Your task to perform on an android device: Open calendar and show me the second week of next month Image 0: 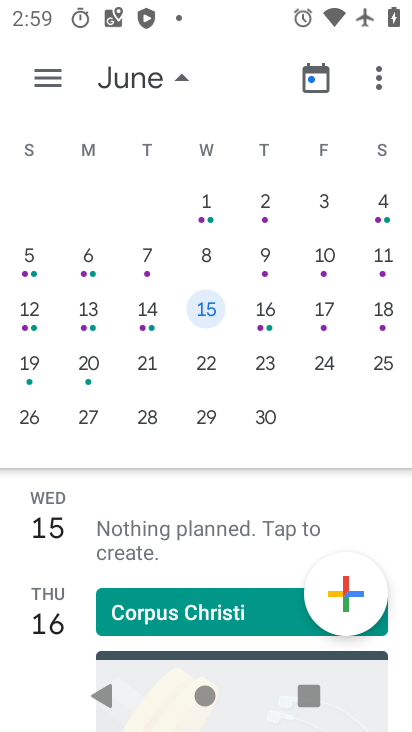
Step 0: press home button
Your task to perform on an android device: Open calendar and show me the second week of next month Image 1: 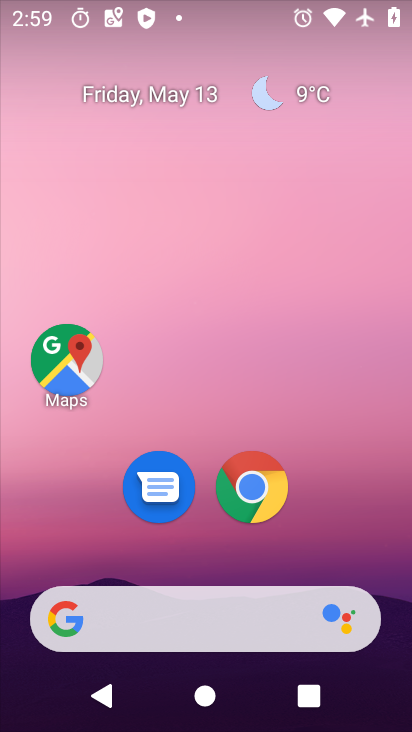
Step 1: drag from (208, 549) to (192, 138)
Your task to perform on an android device: Open calendar and show me the second week of next month Image 2: 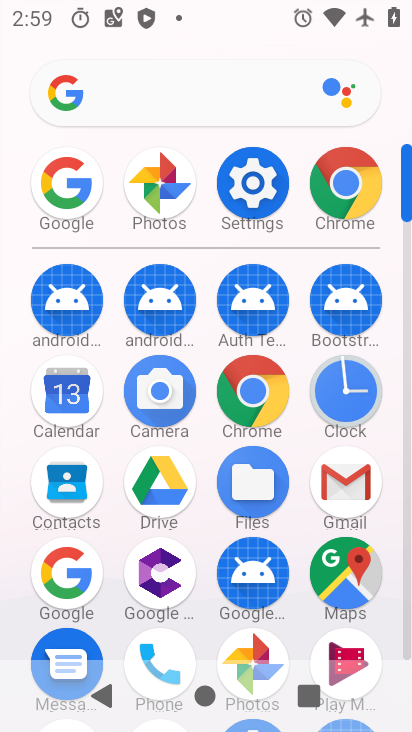
Step 2: click (68, 397)
Your task to perform on an android device: Open calendar and show me the second week of next month Image 3: 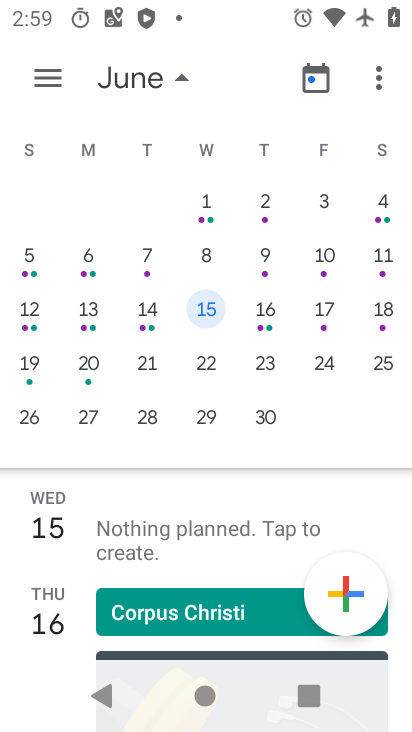
Step 3: click (259, 257)
Your task to perform on an android device: Open calendar and show me the second week of next month Image 4: 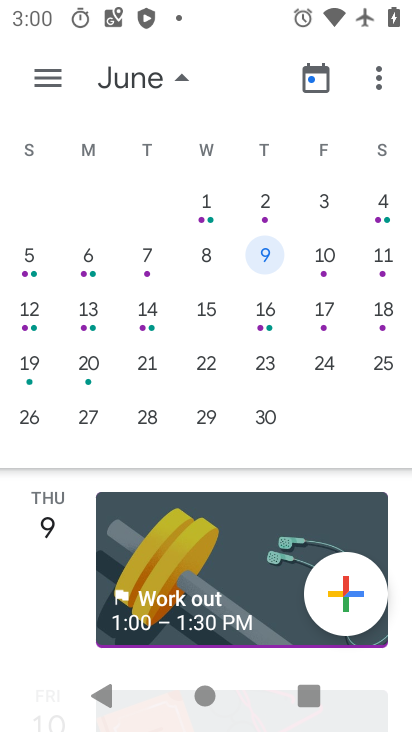
Step 4: task complete